Your task to perform on an android device: open device folders in google photos Image 0: 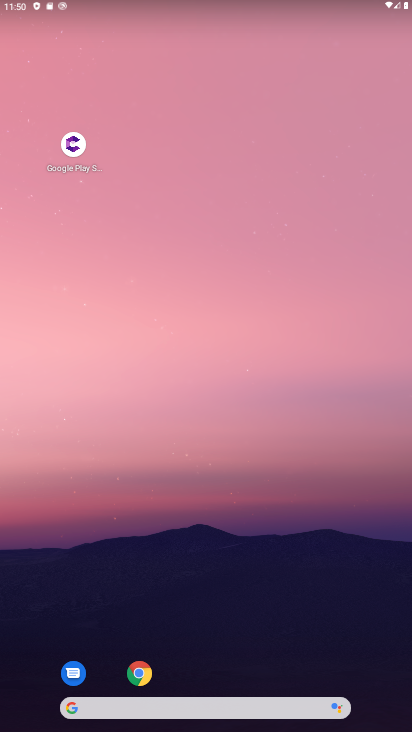
Step 0: drag from (198, 683) to (309, 187)
Your task to perform on an android device: open device folders in google photos Image 1: 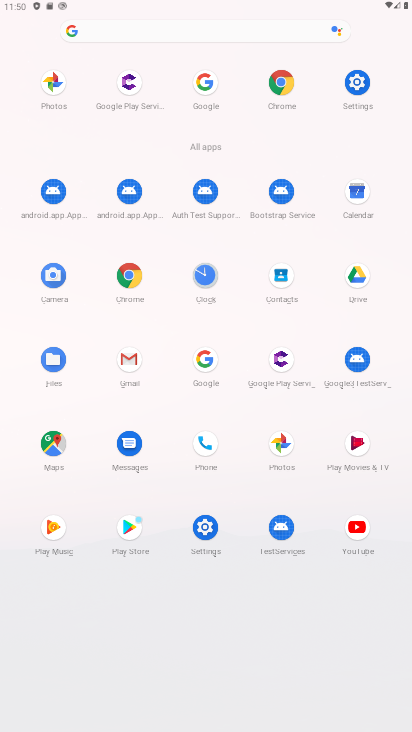
Step 1: click (292, 447)
Your task to perform on an android device: open device folders in google photos Image 2: 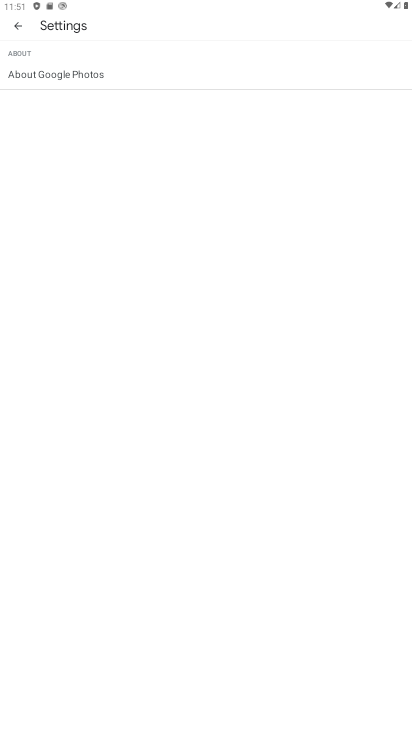
Step 2: press back button
Your task to perform on an android device: open device folders in google photos Image 3: 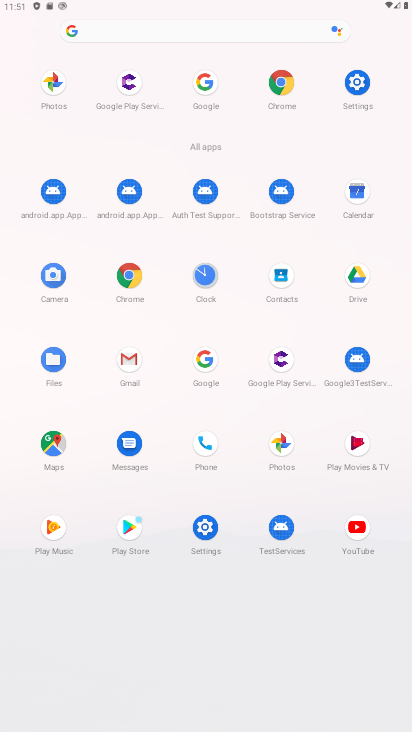
Step 3: click (278, 439)
Your task to perform on an android device: open device folders in google photos Image 4: 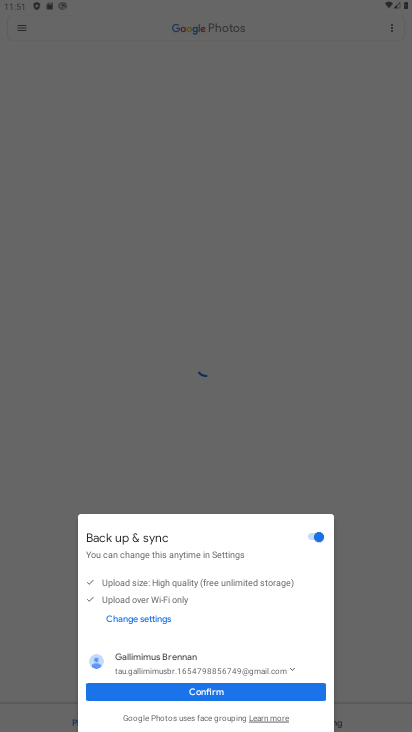
Step 4: click (211, 694)
Your task to perform on an android device: open device folders in google photos Image 5: 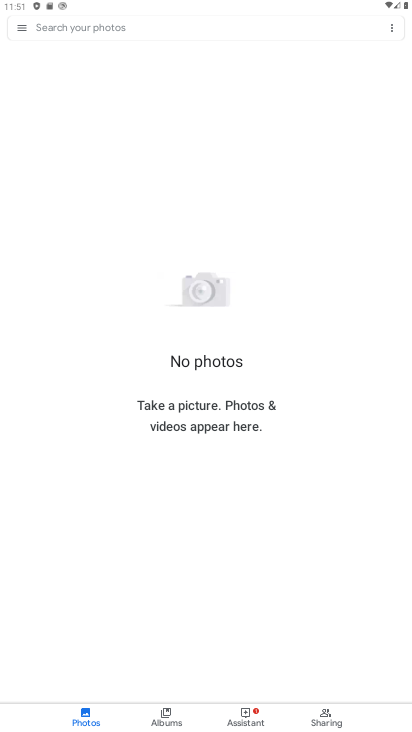
Step 5: click (28, 37)
Your task to perform on an android device: open device folders in google photos Image 6: 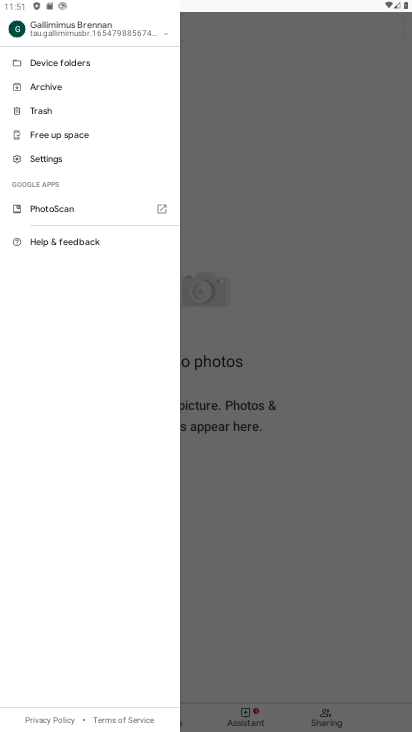
Step 6: click (78, 74)
Your task to perform on an android device: open device folders in google photos Image 7: 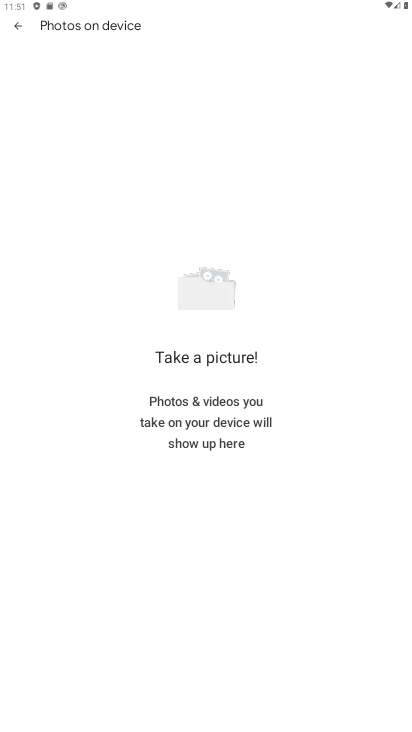
Step 7: task complete